Your task to perform on an android device: check battery use Image 0: 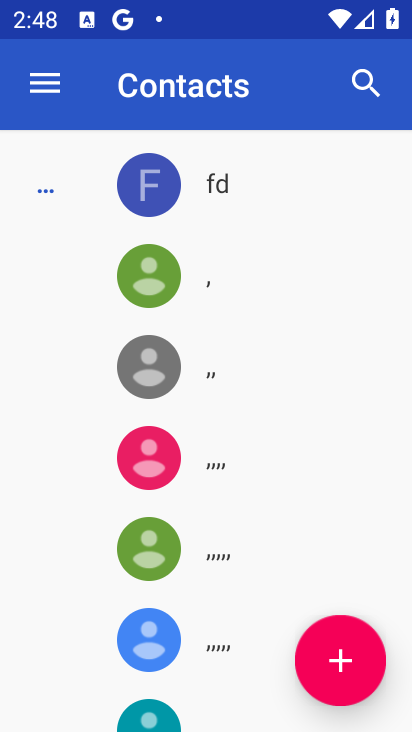
Step 0: press home button
Your task to perform on an android device: check battery use Image 1: 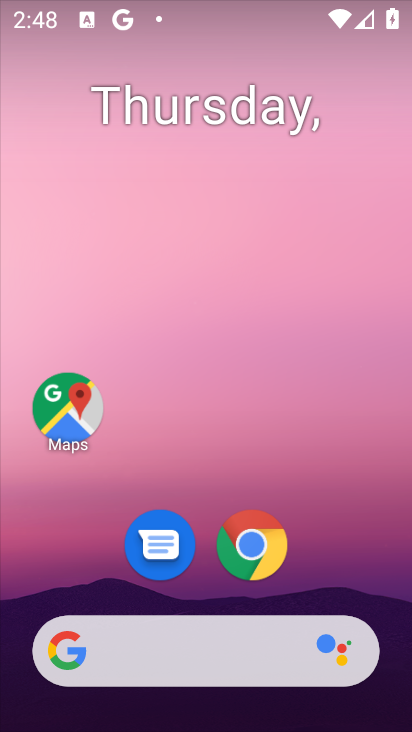
Step 1: drag from (161, 165) to (165, 114)
Your task to perform on an android device: check battery use Image 2: 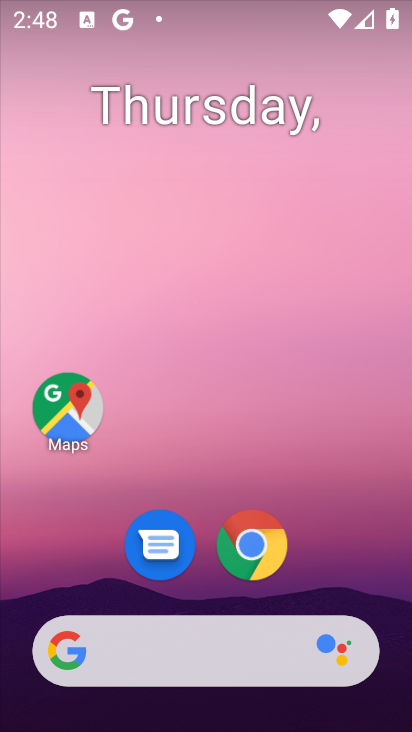
Step 2: drag from (228, 662) to (308, 62)
Your task to perform on an android device: check battery use Image 3: 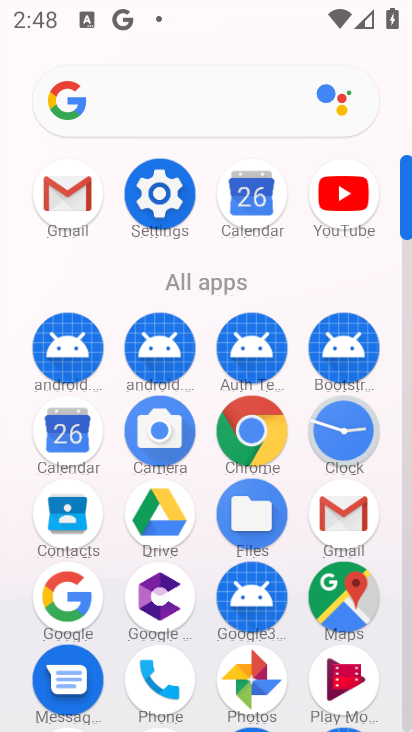
Step 3: click (180, 204)
Your task to perform on an android device: check battery use Image 4: 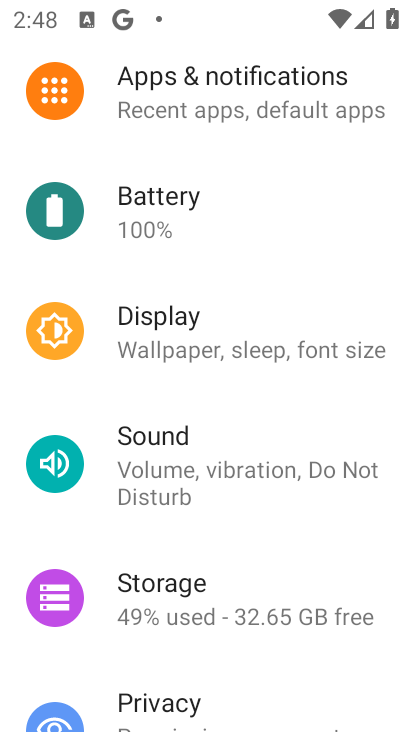
Step 4: click (202, 221)
Your task to perform on an android device: check battery use Image 5: 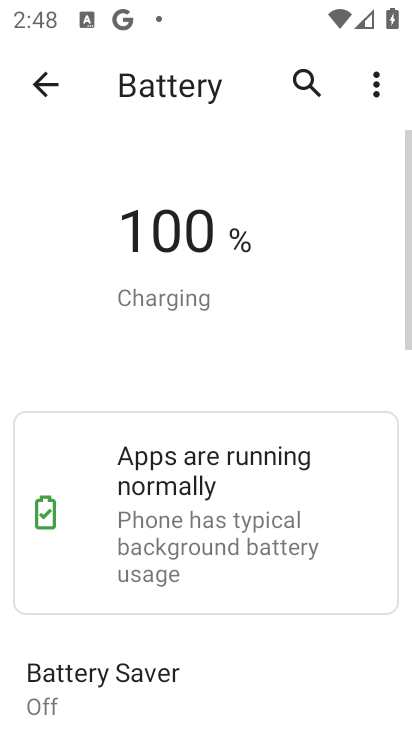
Step 5: click (378, 77)
Your task to perform on an android device: check battery use Image 6: 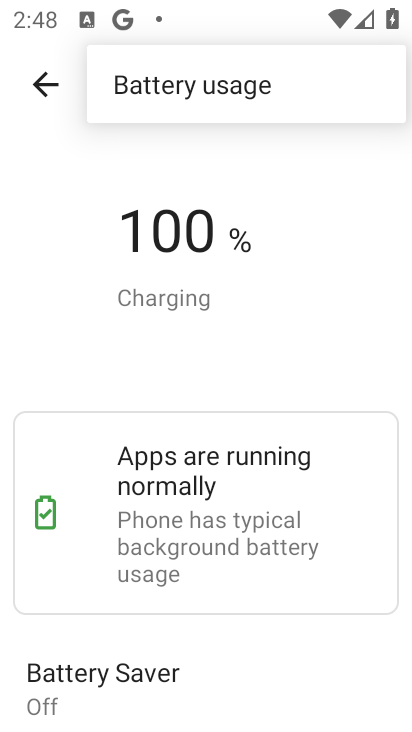
Step 6: click (333, 96)
Your task to perform on an android device: check battery use Image 7: 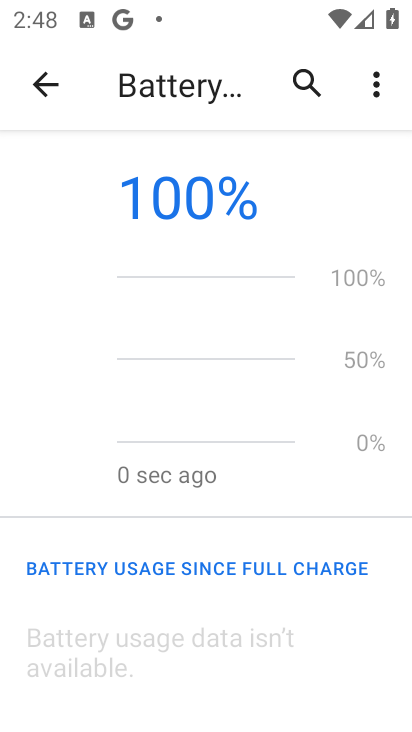
Step 7: task complete